Your task to perform on an android device: toggle notifications settings in the gmail app Image 0: 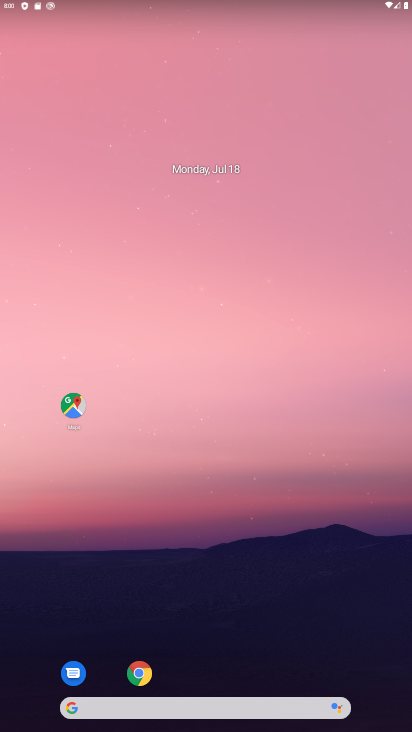
Step 0: drag from (182, 449) to (182, 129)
Your task to perform on an android device: toggle notifications settings in the gmail app Image 1: 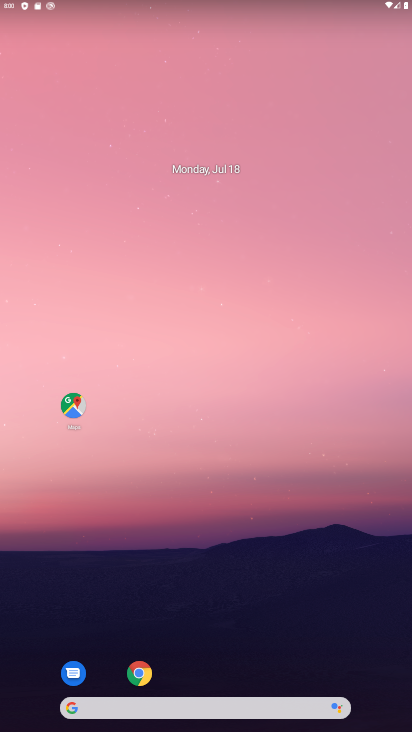
Step 1: drag from (182, 665) to (261, 2)
Your task to perform on an android device: toggle notifications settings in the gmail app Image 2: 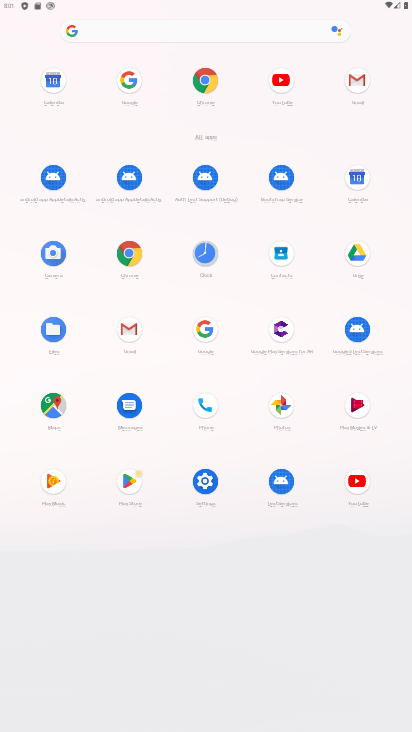
Step 2: click (356, 103)
Your task to perform on an android device: toggle notifications settings in the gmail app Image 3: 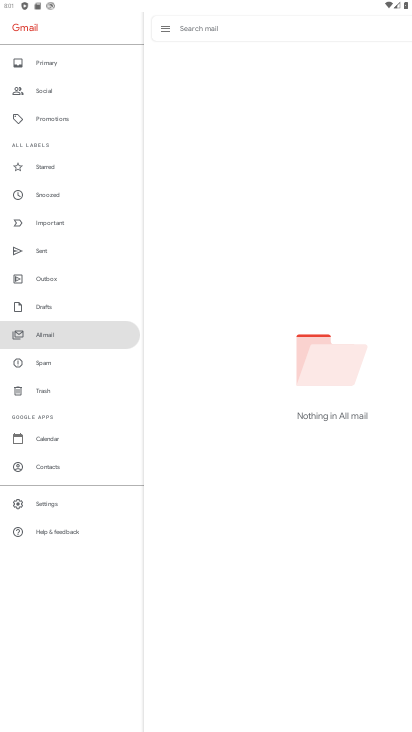
Step 3: click (48, 507)
Your task to perform on an android device: toggle notifications settings in the gmail app Image 4: 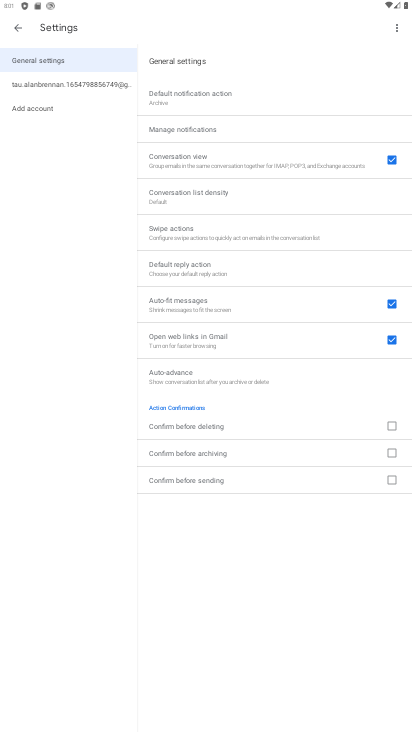
Step 4: click (86, 84)
Your task to perform on an android device: toggle notifications settings in the gmail app Image 5: 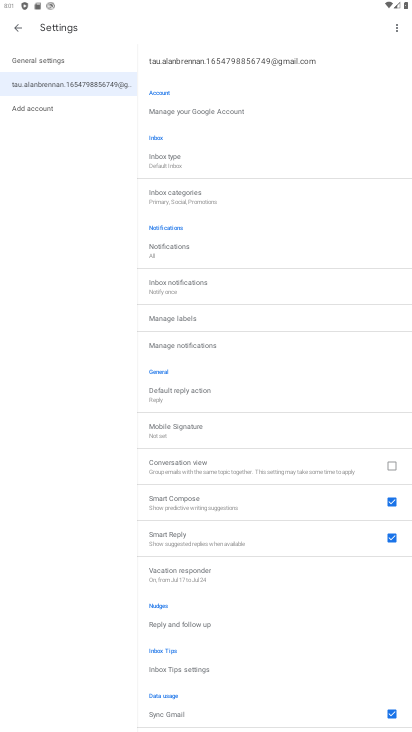
Step 5: click (192, 338)
Your task to perform on an android device: toggle notifications settings in the gmail app Image 6: 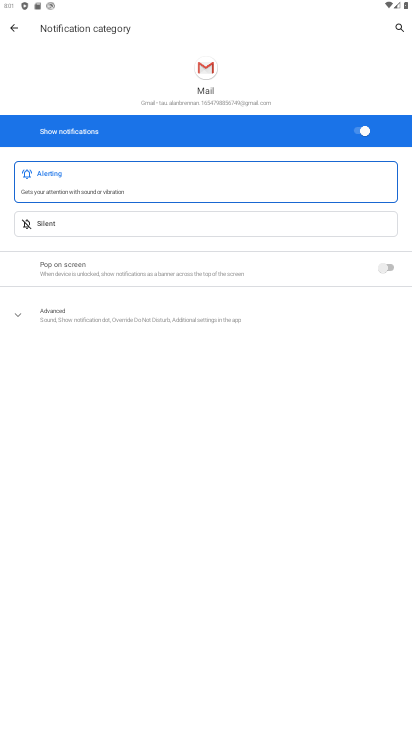
Step 6: click (357, 132)
Your task to perform on an android device: toggle notifications settings in the gmail app Image 7: 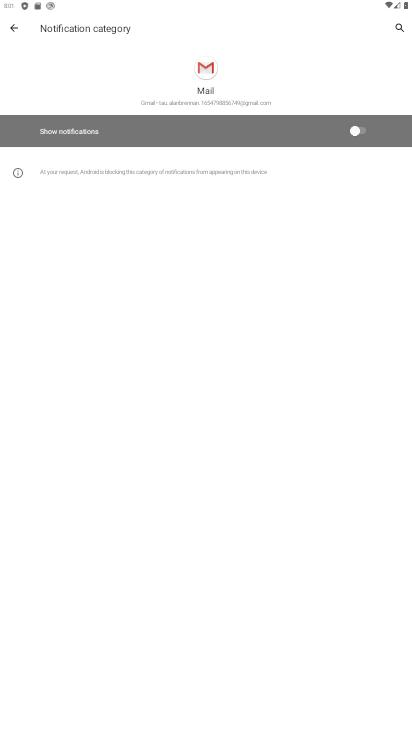
Step 7: task complete